Your task to perform on an android device: change the clock display to analog Image 0: 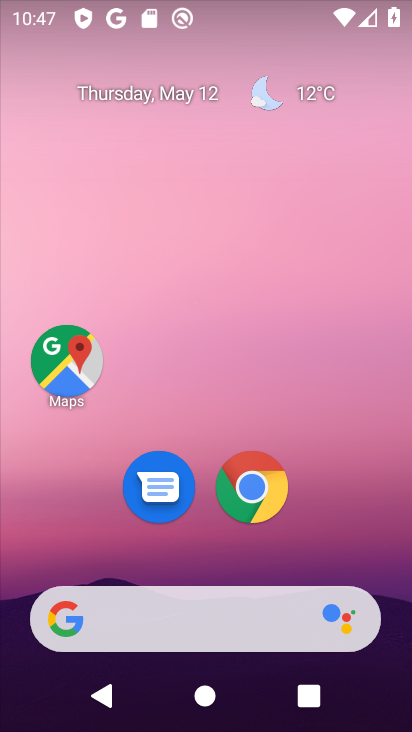
Step 0: drag from (365, 538) to (130, 46)
Your task to perform on an android device: change the clock display to analog Image 1: 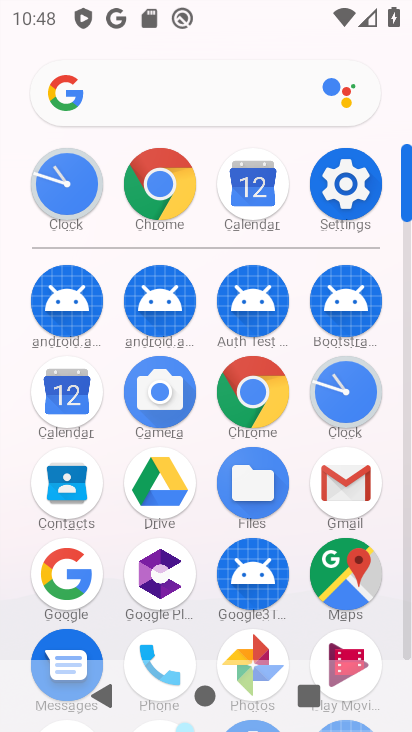
Step 1: click (61, 199)
Your task to perform on an android device: change the clock display to analog Image 2: 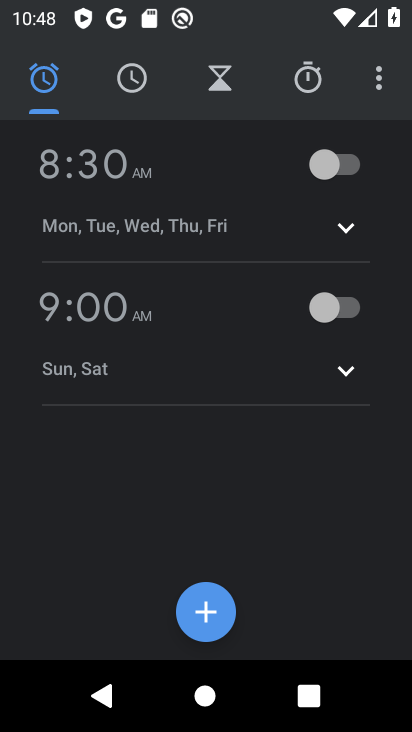
Step 2: click (380, 83)
Your task to perform on an android device: change the clock display to analog Image 3: 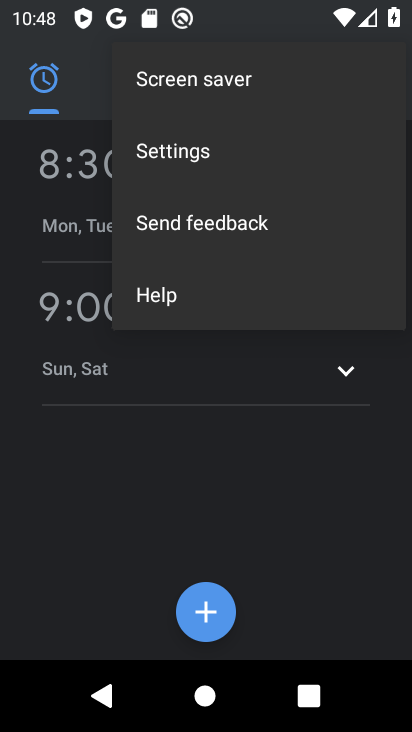
Step 3: click (172, 159)
Your task to perform on an android device: change the clock display to analog Image 4: 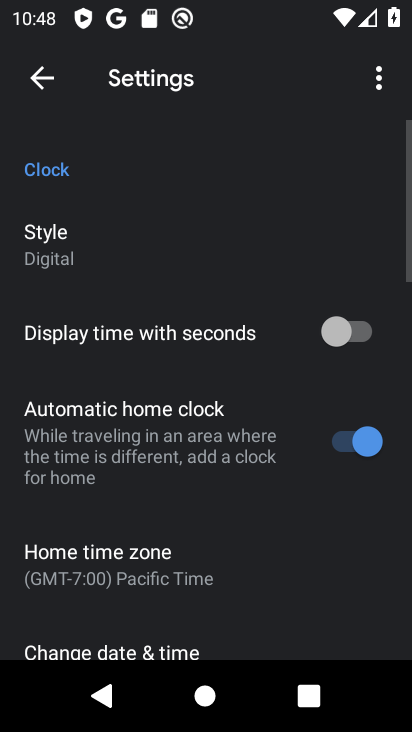
Step 4: click (58, 269)
Your task to perform on an android device: change the clock display to analog Image 5: 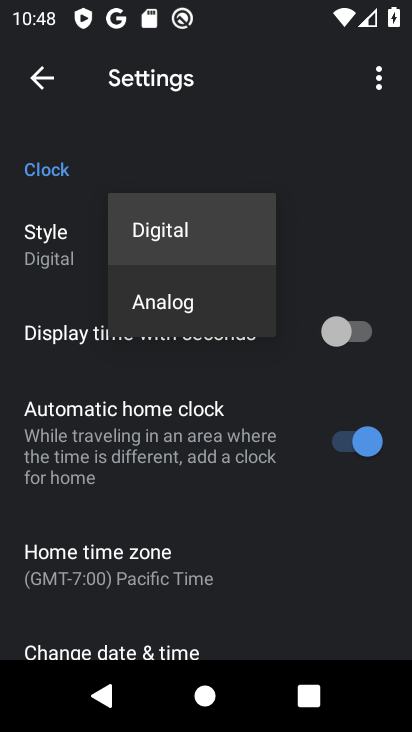
Step 5: click (159, 300)
Your task to perform on an android device: change the clock display to analog Image 6: 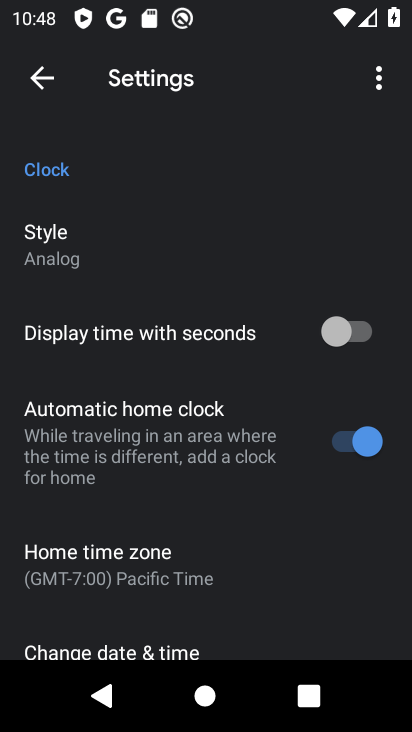
Step 6: task complete